Your task to perform on an android device: toggle show notifications on the lock screen Image 0: 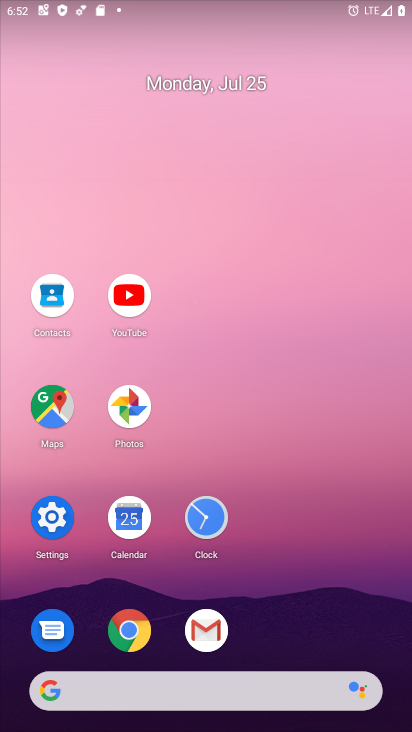
Step 0: click (49, 516)
Your task to perform on an android device: toggle show notifications on the lock screen Image 1: 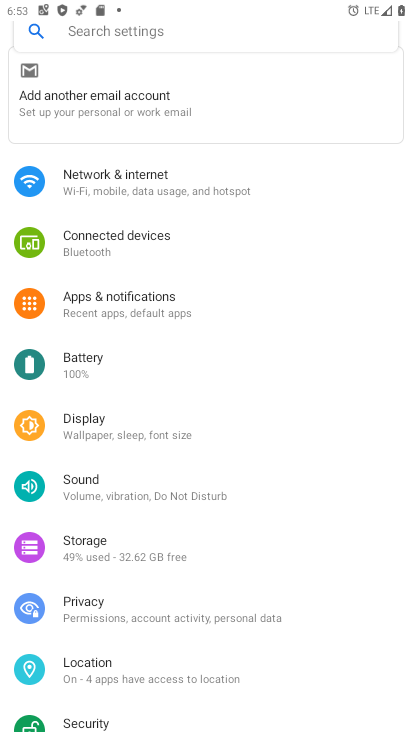
Step 1: click (108, 300)
Your task to perform on an android device: toggle show notifications on the lock screen Image 2: 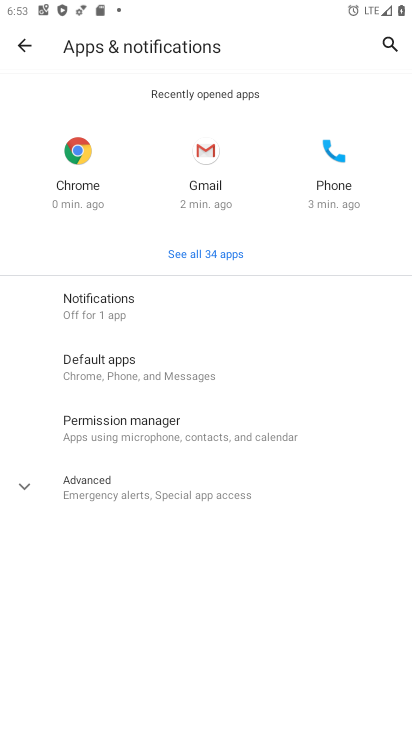
Step 2: click (97, 292)
Your task to perform on an android device: toggle show notifications on the lock screen Image 3: 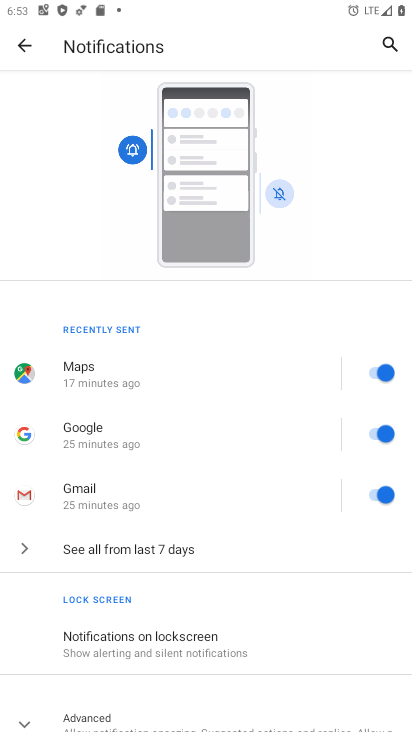
Step 3: drag from (247, 611) to (207, 282)
Your task to perform on an android device: toggle show notifications on the lock screen Image 4: 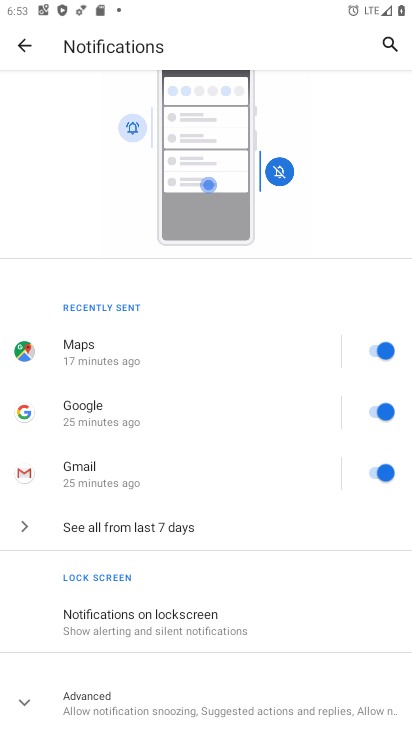
Step 4: drag from (273, 589) to (288, 341)
Your task to perform on an android device: toggle show notifications on the lock screen Image 5: 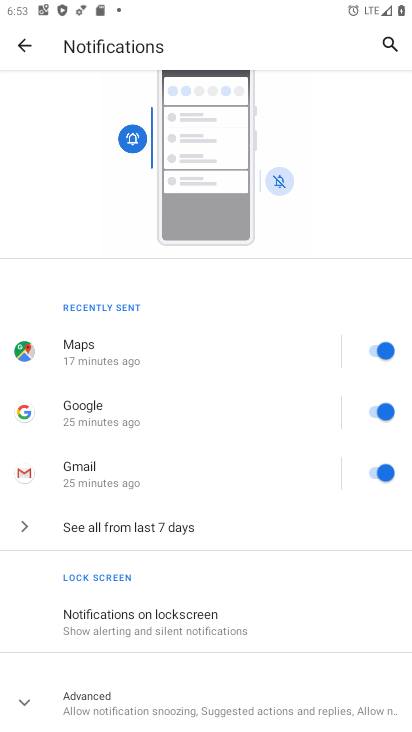
Step 5: click (129, 610)
Your task to perform on an android device: toggle show notifications on the lock screen Image 6: 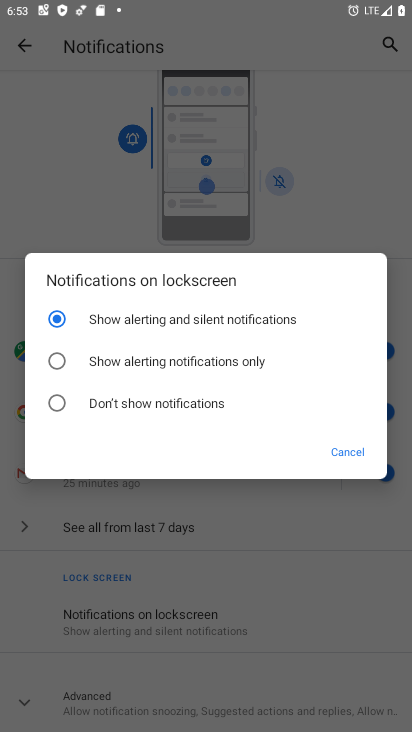
Step 6: click (55, 399)
Your task to perform on an android device: toggle show notifications on the lock screen Image 7: 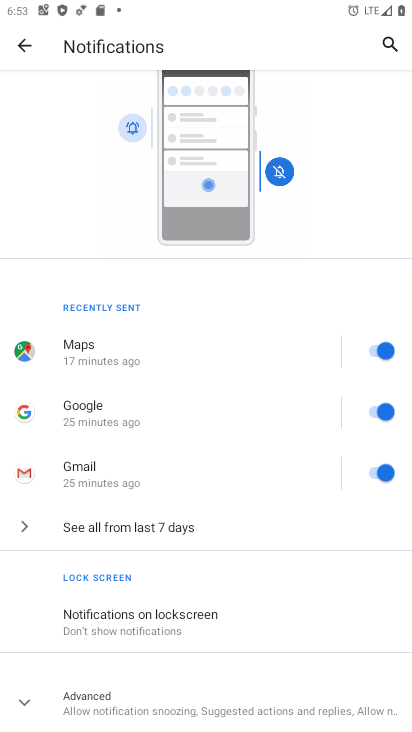
Step 7: task complete